Your task to perform on an android device: turn off smart reply in the gmail app Image 0: 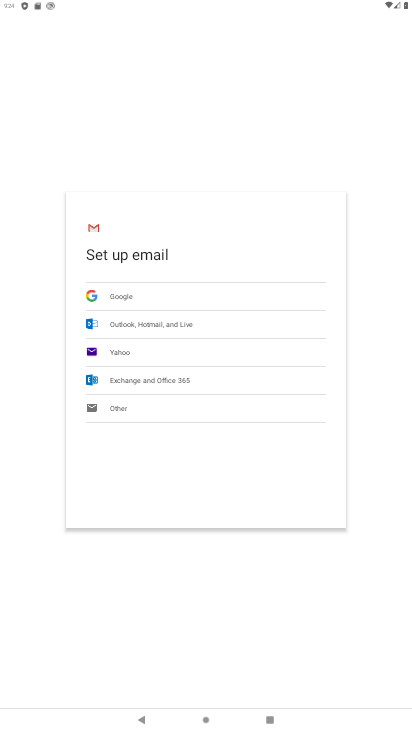
Step 0: press home button
Your task to perform on an android device: turn off smart reply in the gmail app Image 1: 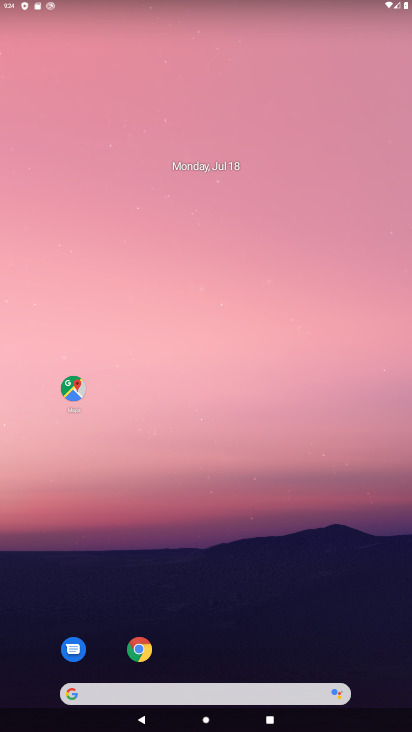
Step 1: drag from (15, 609) to (225, 137)
Your task to perform on an android device: turn off smart reply in the gmail app Image 2: 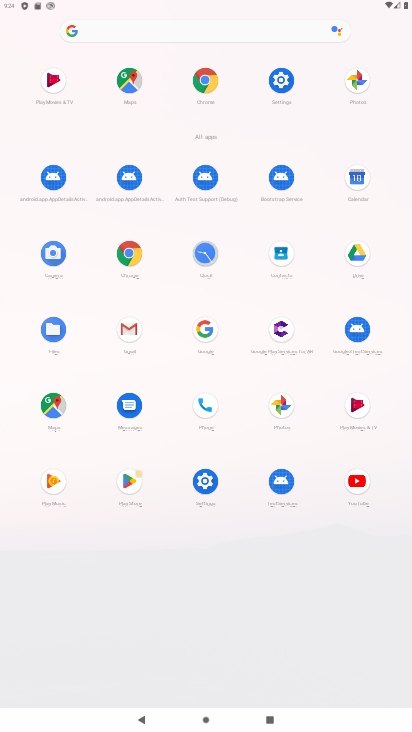
Step 2: click (121, 329)
Your task to perform on an android device: turn off smart reply in the gmail app Image 3: 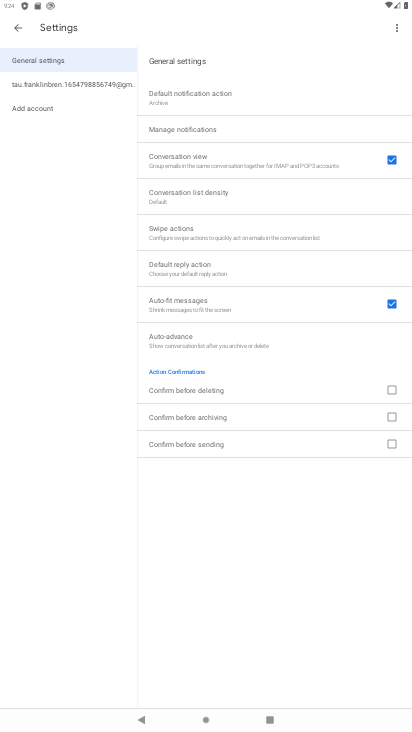
Step 3: click (74, 88)
Your task to perform on an android device: turn off smart reply in the gmail app Image 4: 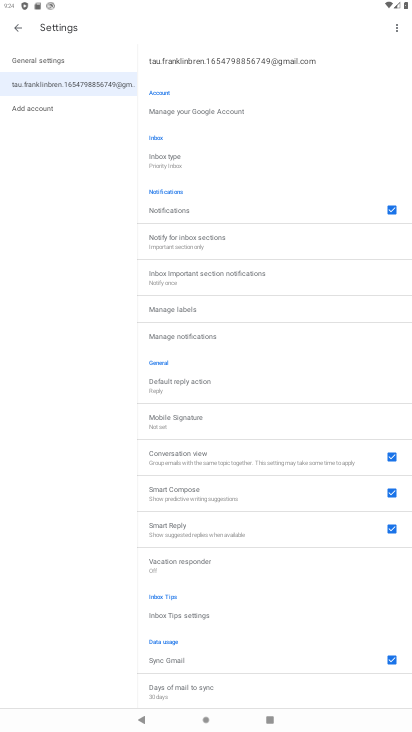
Step 4: drag from (89, 647) to (252, 243)
Your task to perform on an android device: turn off smart reply in the gmail app Image 5: 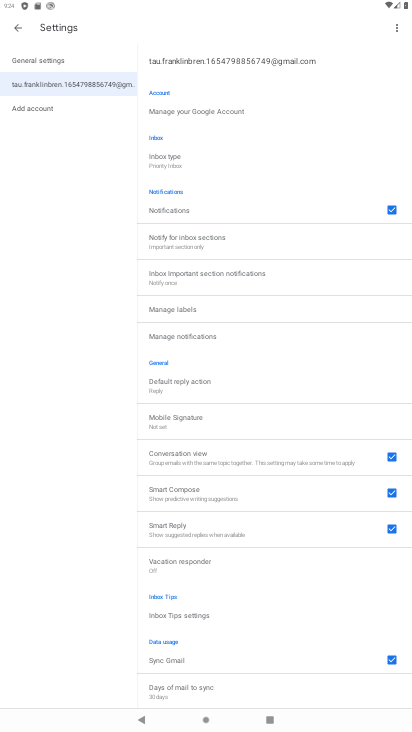
Step 5: click (395, 528)
Your task to perform on an android device: turn off smart reply in the gmail app Image 6: 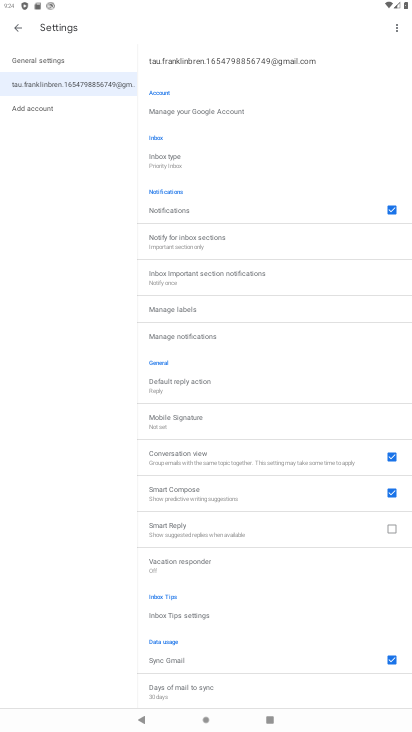
Step 6: task complete